Your task to perform on an android device: set the timer Image 0: 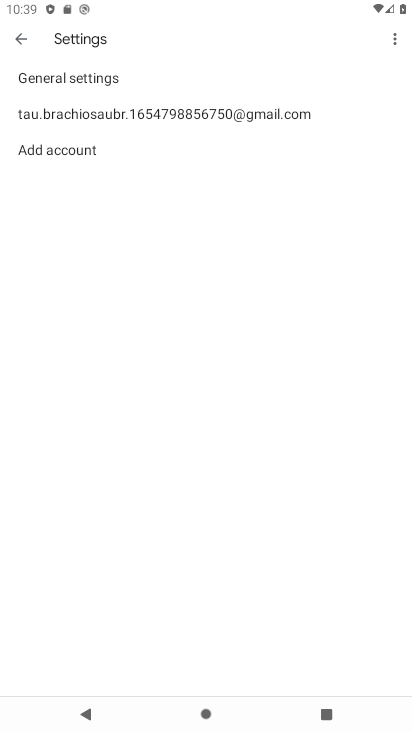
Step 0: press home button
Your task to perform on an android device: set the timer Image 1: 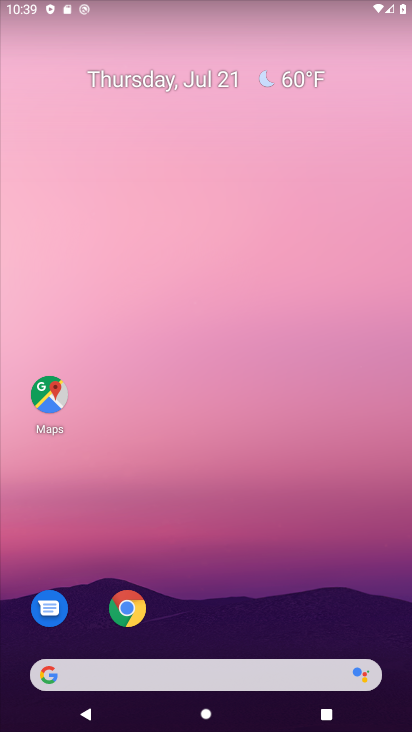
Step 1: drag from (191, 608) to (183, 4)
Your task to perform on an android device: set the timer Image 2: 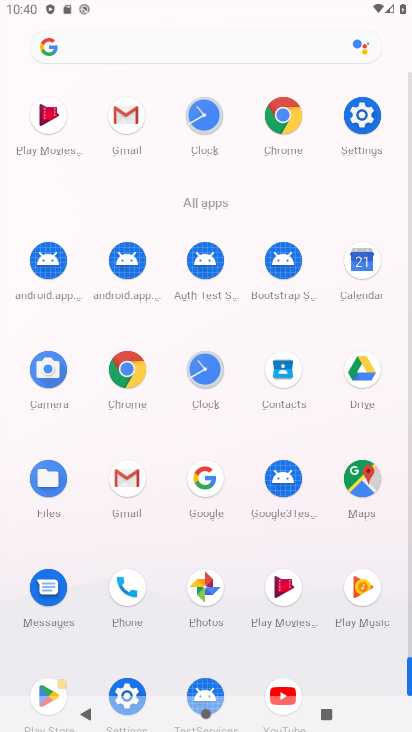
Step 2: click (200, 125)
Your task to perform on an android device: set the timer Image 3: 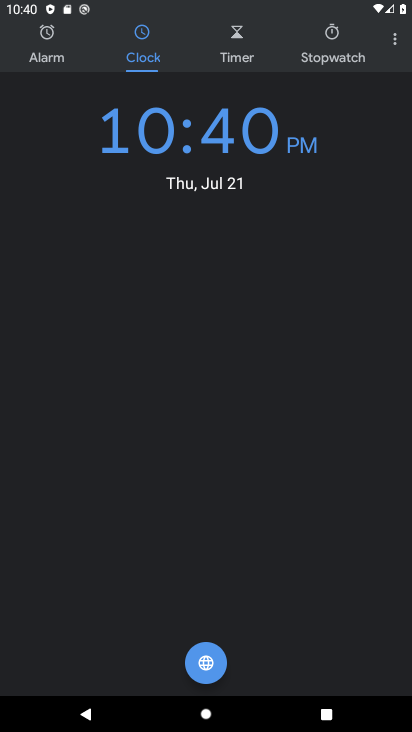
Step 3: click (241, 52)
Your task to perform on an android device: set the timer Image 4: 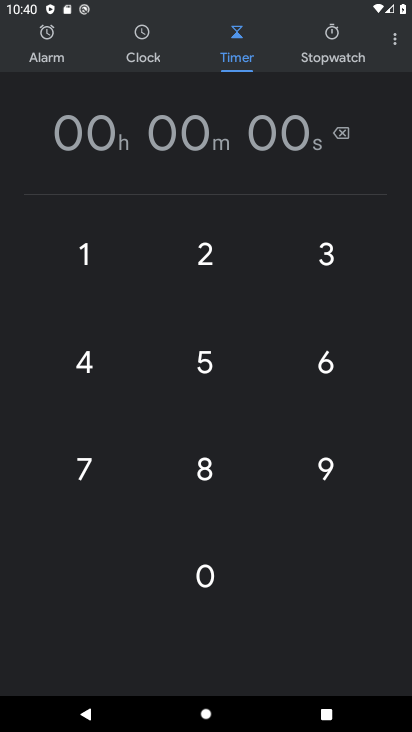
Step 4: click (205, 458)
Your task to perform on an android device: set the timer Image 5: 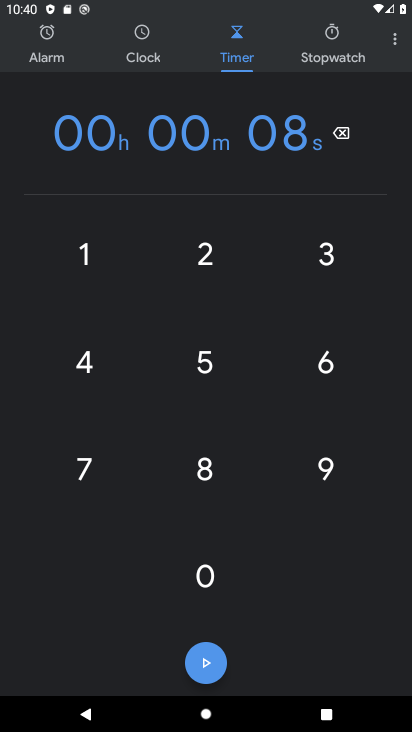
Step 5: click (96, 362)
Your task to perform on an android device: set the timer Image 6: 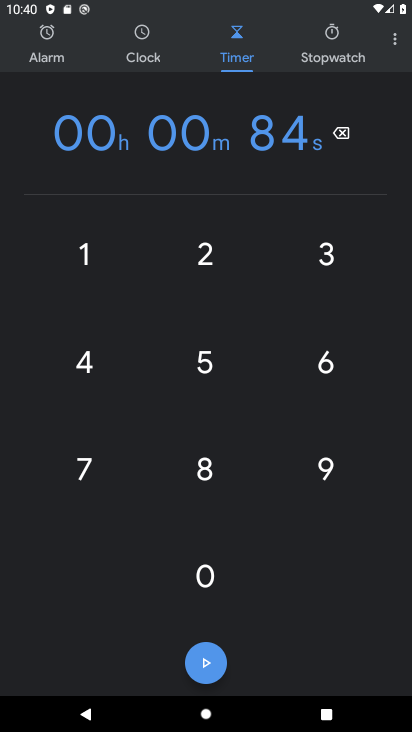
Step 6: click (335, 479)
Your task to perform on an android device: set the timer Image 7: 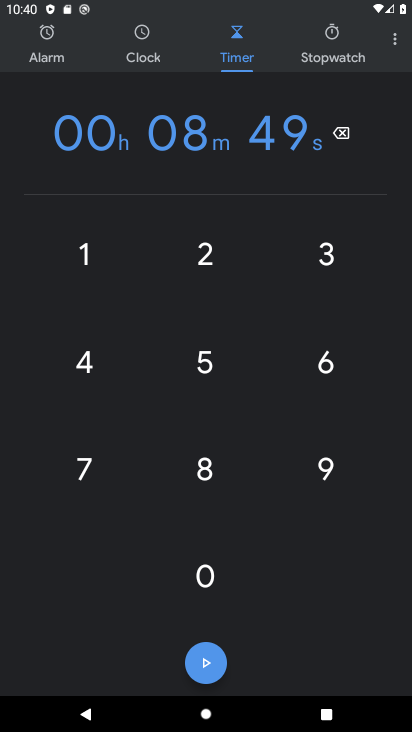
Step 7: click (210, 662)
Your task to perform on an android device: set the timer Image 8: 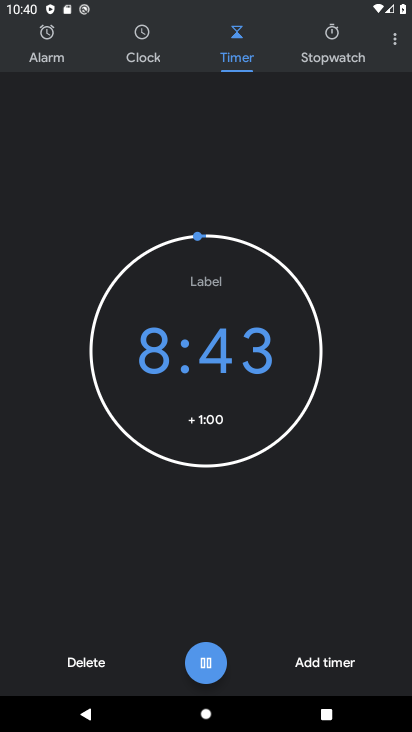
Step 8: task complete